Your task to perform on an android device: turn on wifi Image 0: 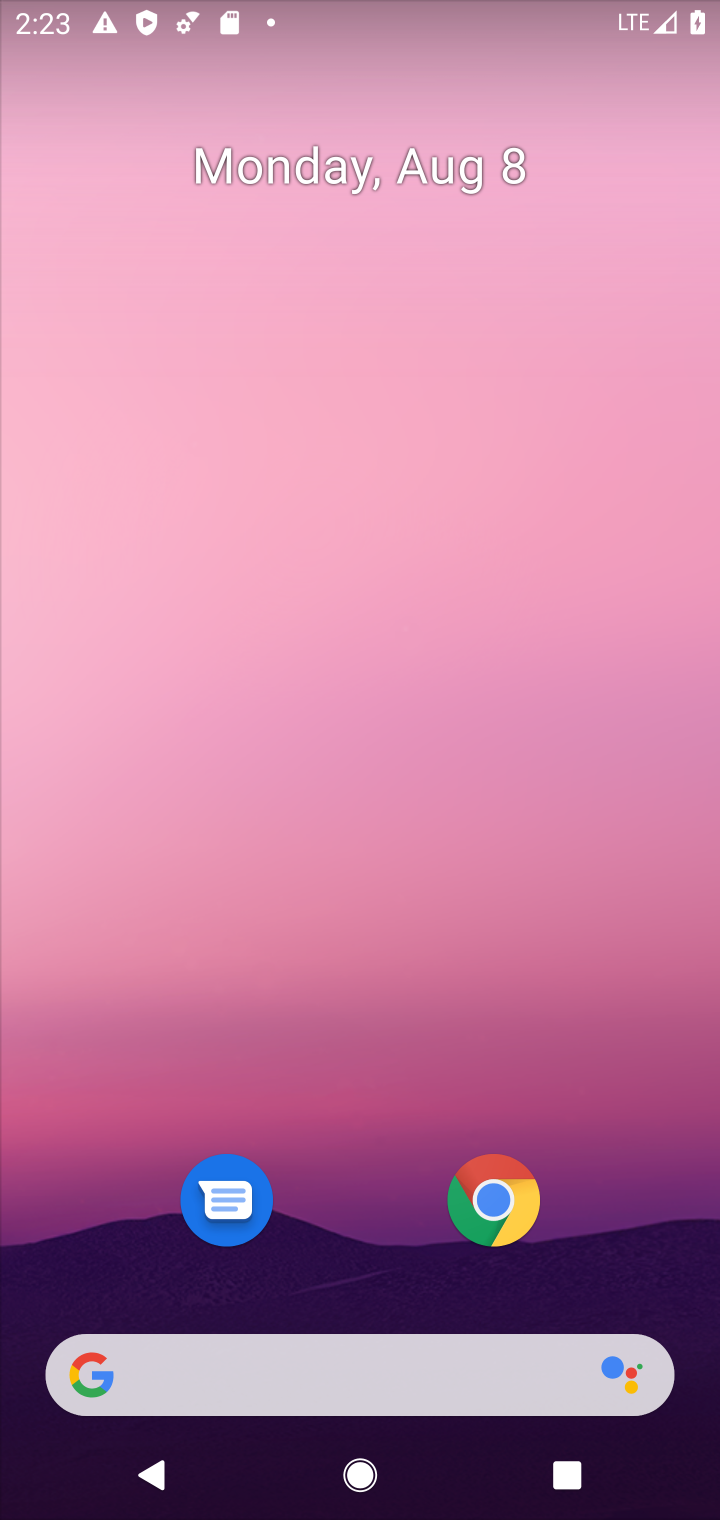
Step 0: drag from (246, 39) to (462, 1180)
Your task to perform on an android device: turn on wifi Image 1: 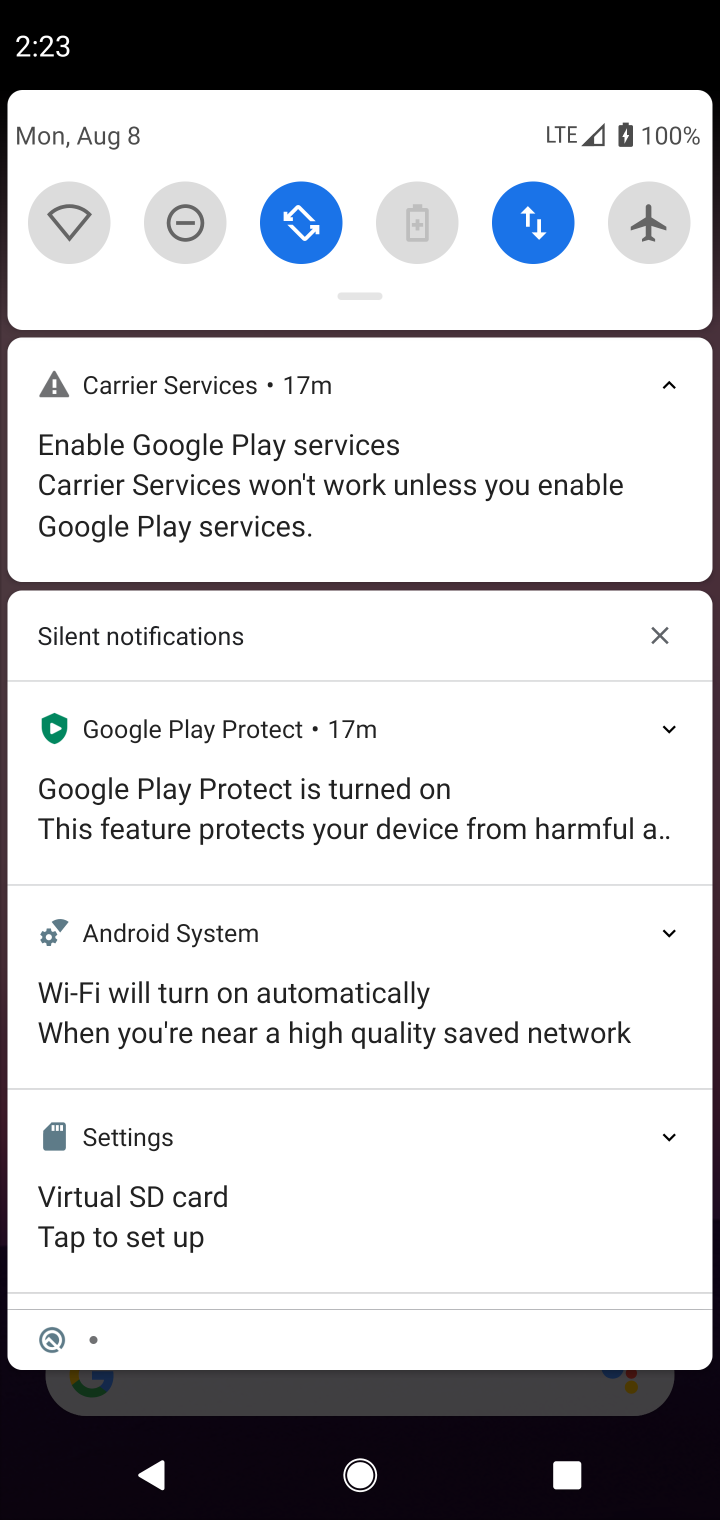
Step 1: click (69, 216)
Your task to perform on an android device: turn on wifi Image 2: 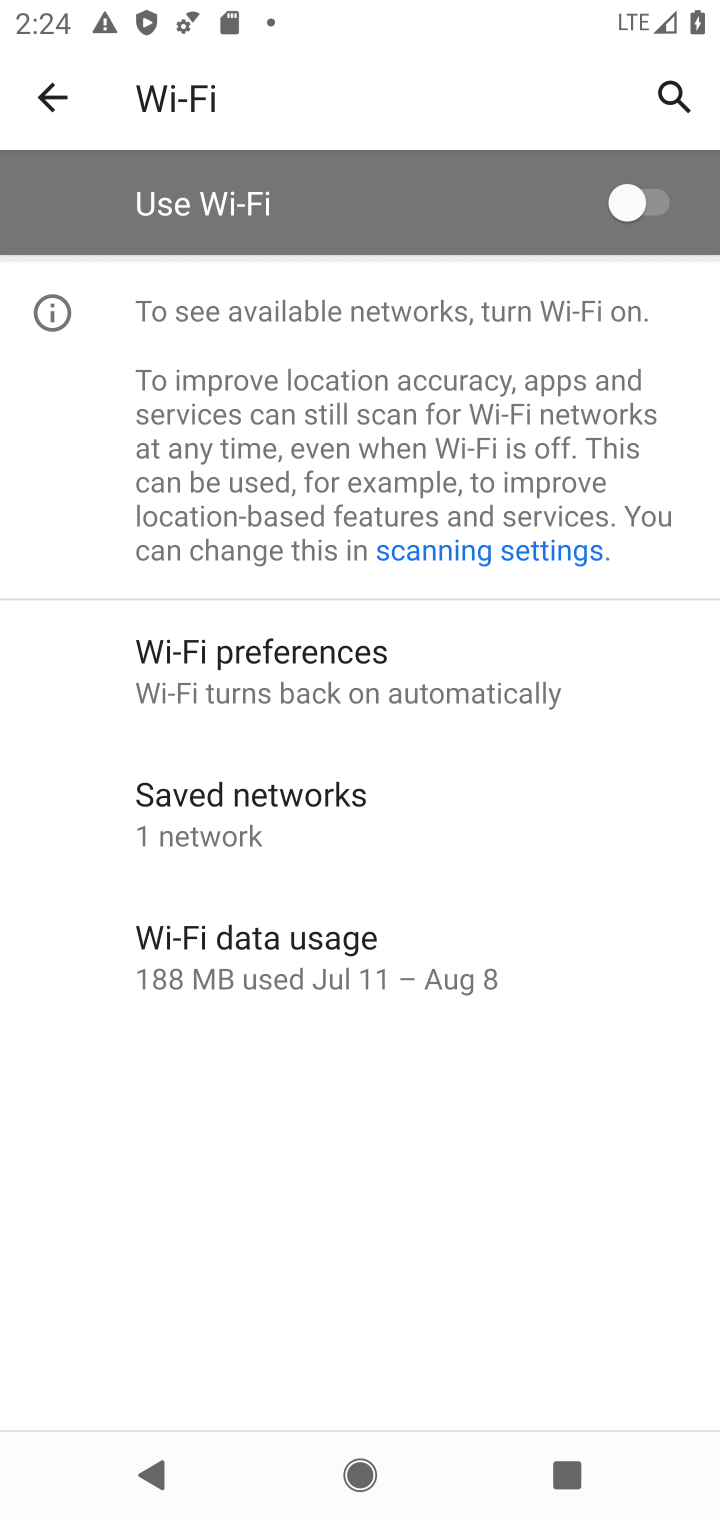
Step 2: click (618, 198)
Your task to perform on an android device: turn on wifi Image 3: 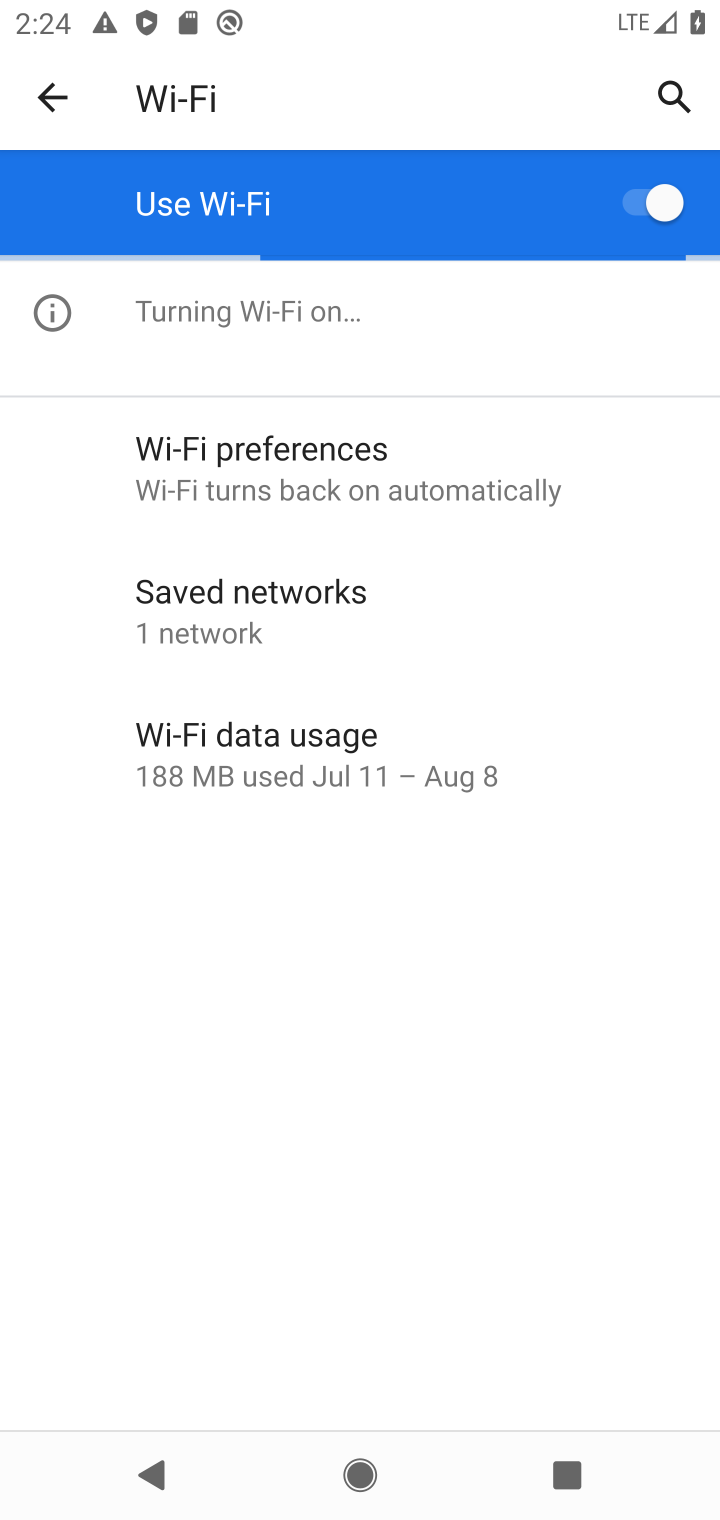
Step 3: task complete